Your task to perform on an android device: open wifi settings Image 0: 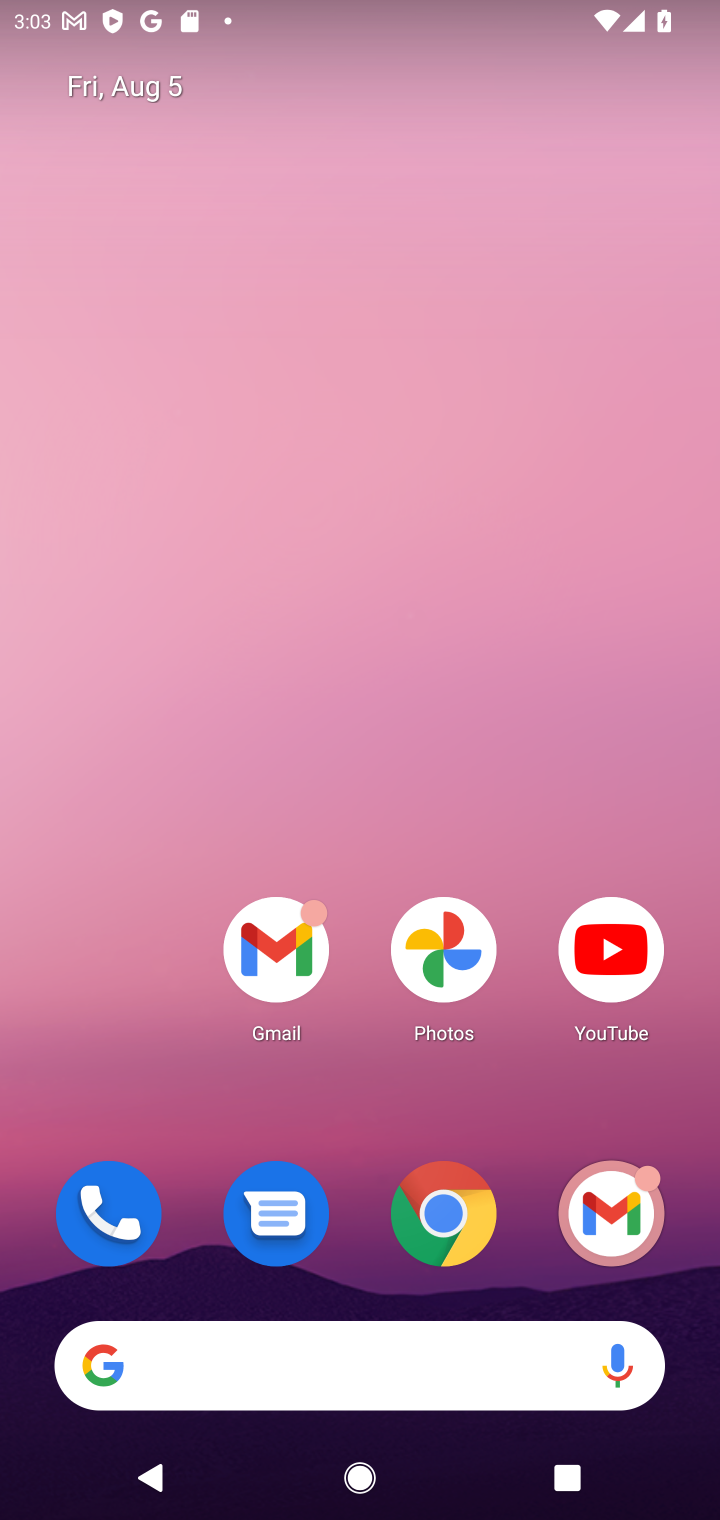
Step 0: drag from (175, 1298) to (163, 460)
Your task to perform on an android device: open wifi settings Image 1: 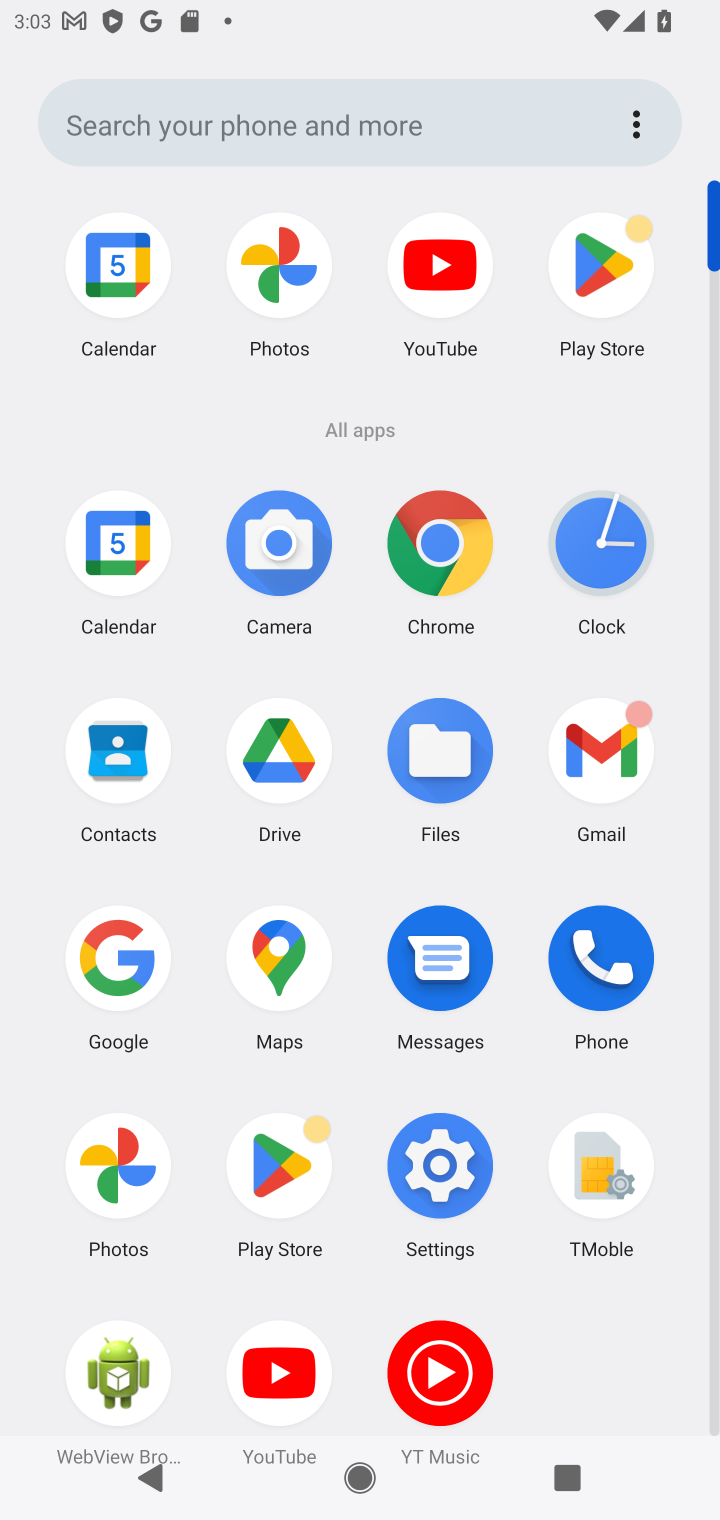
Step 1: click (450, 1218)
Your task to perform on an android device: open wifi settings Image 2: 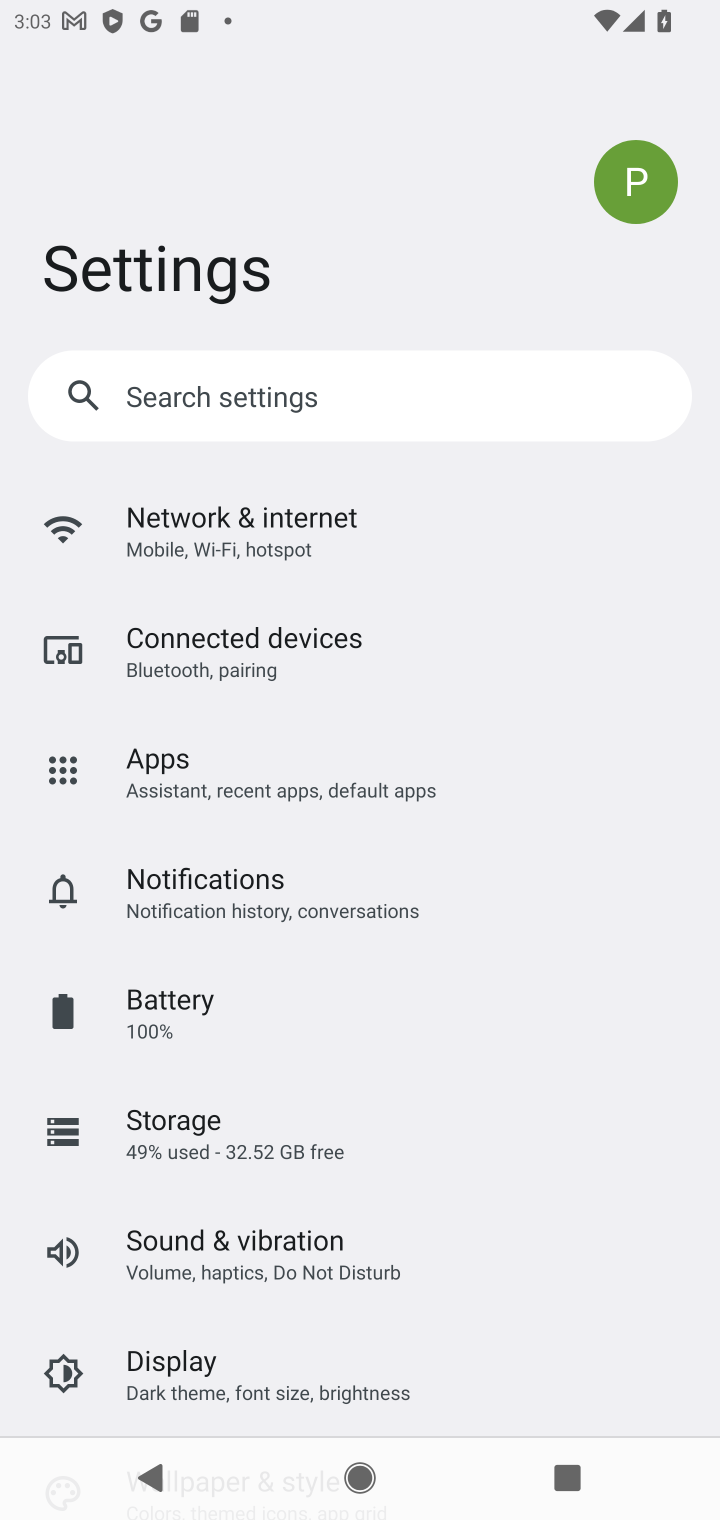
Step 2: click (257, 543)
Your task to perform on an android device: open wifi settings Image 3: 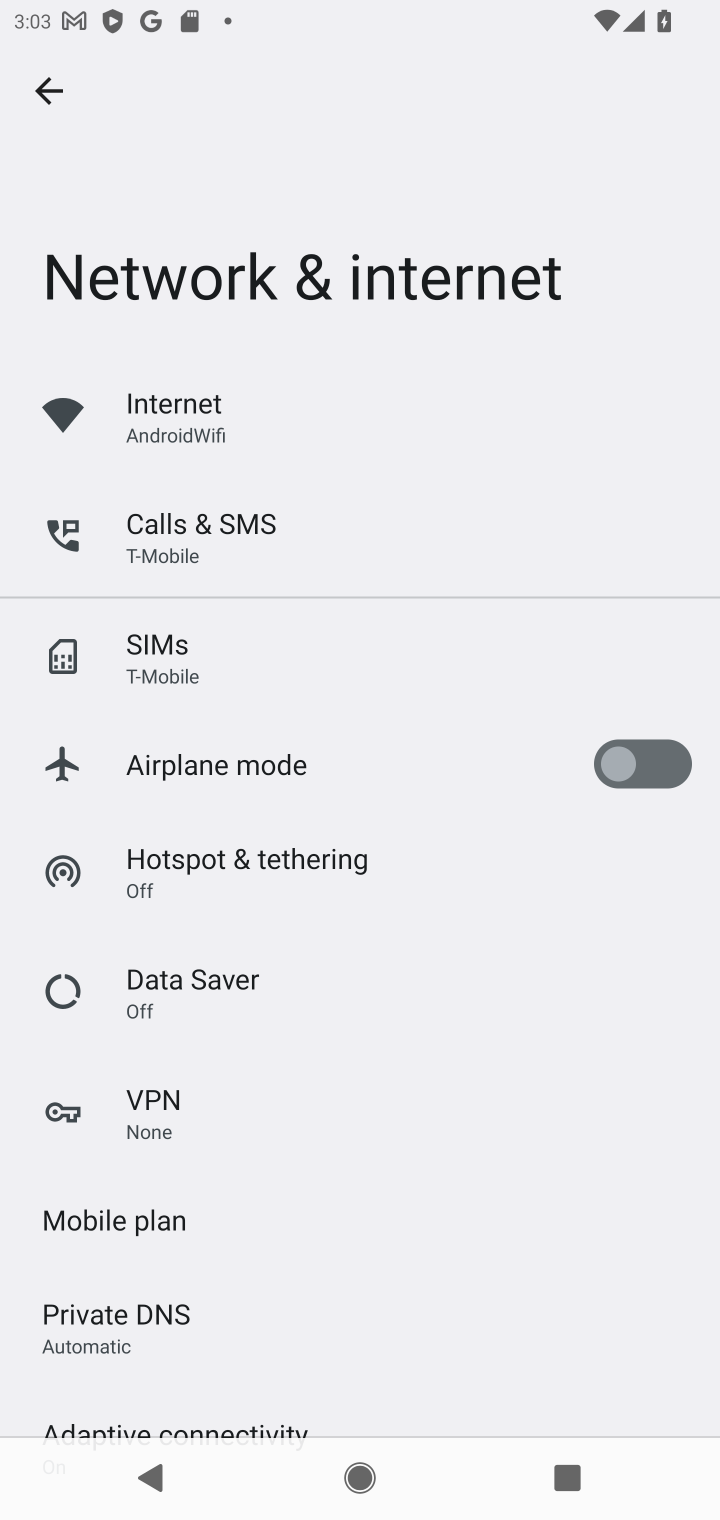
Step 3: click (165, 423)
Your task to perform on an android device: open wifi settings Image 4: 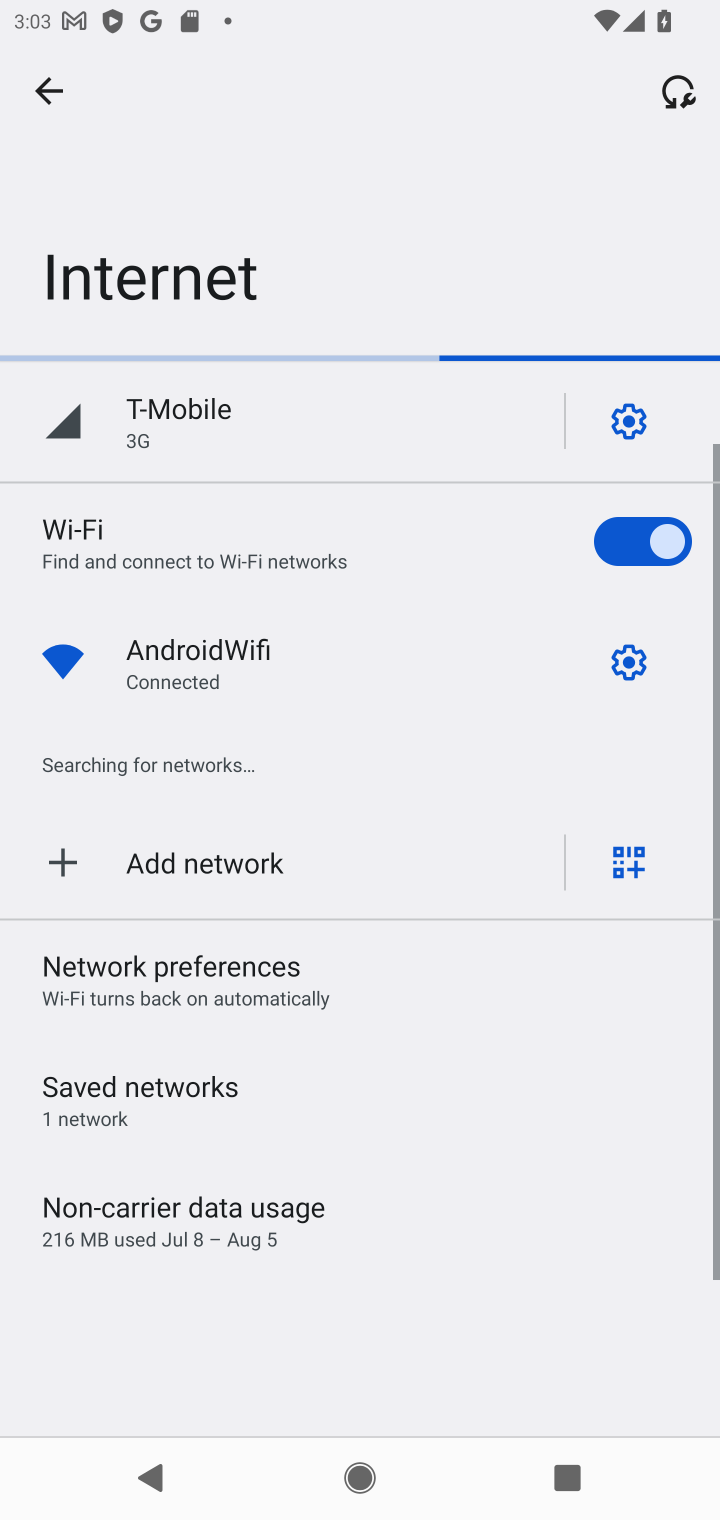
Step 4: task complete